Your task to perform on an android device: Go to location settings Image 0: 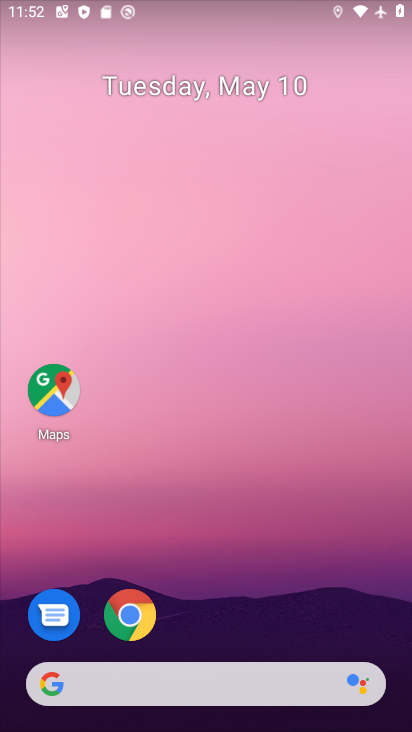
Step 0: drag from (246, 563) to (240, 11)
Your task to perform on an android device: Go to location settings Image 1: 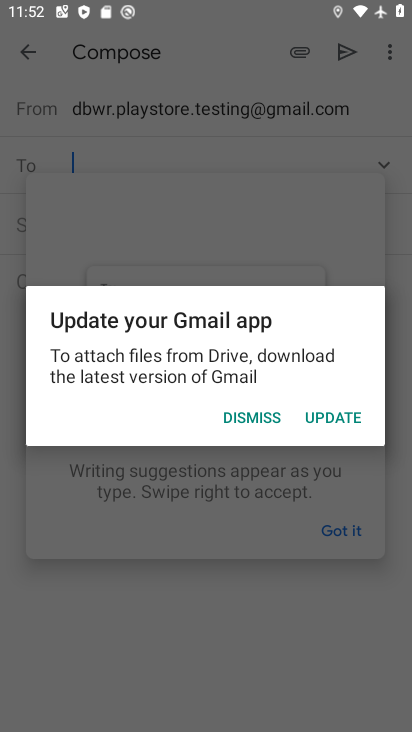
Step 1: press back button
Your task to perform on an android device: Go to location settings Image 2: 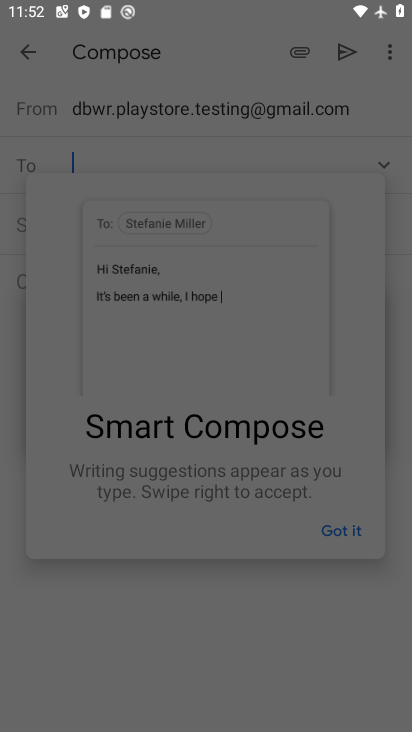
Step 2: press back button
Your task to perform on an android device: Go to location settings Image 3: 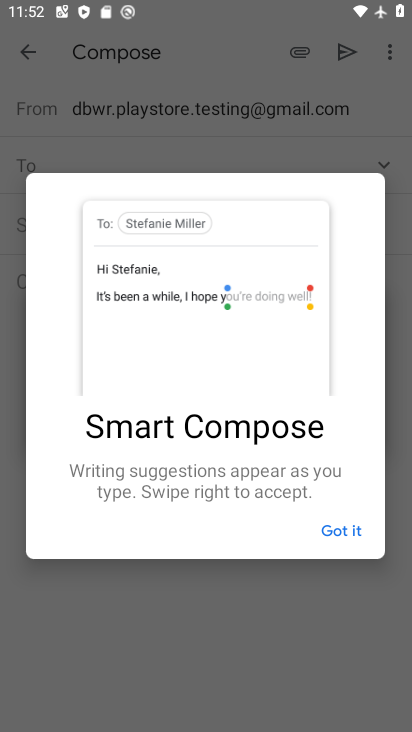
Step 3: press home button
Your task to perform on an android device: Go to location settings Image 4: 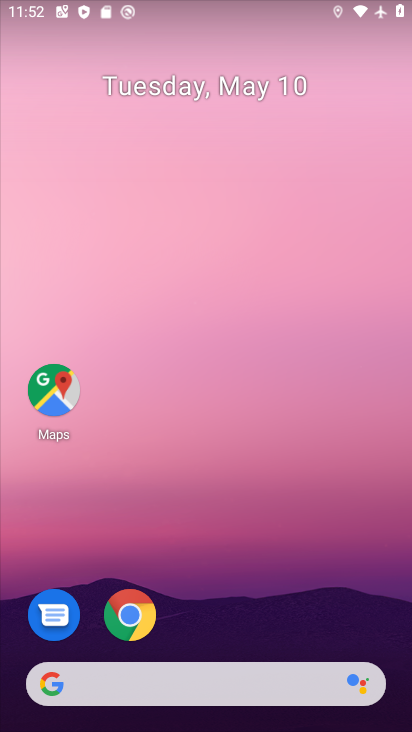
Step 4: drag from (255, 605) to (252, 80)
Your task to perform on an android device: Go to location settings Image 5: 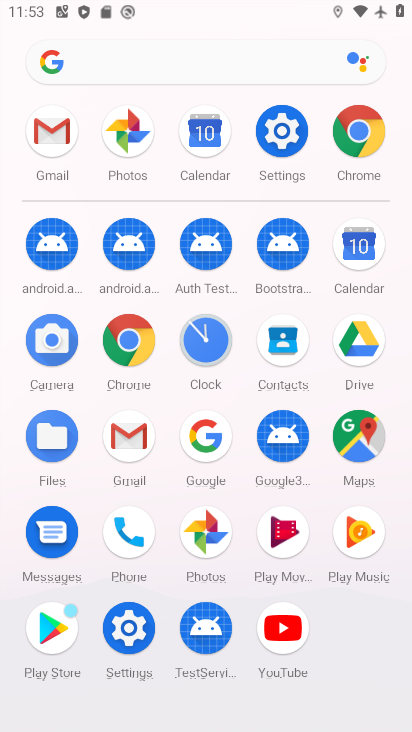
Step 5: click (126, 621)
Your task to perform on an android device: Go to location settings Image 6: 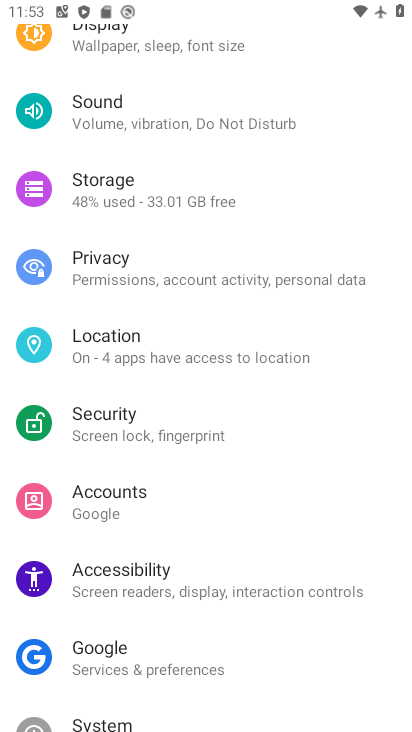
Step 6: drag from (160, 534) to (212, 201)
Your task to perform on an android device: Go to location settings Image 7: 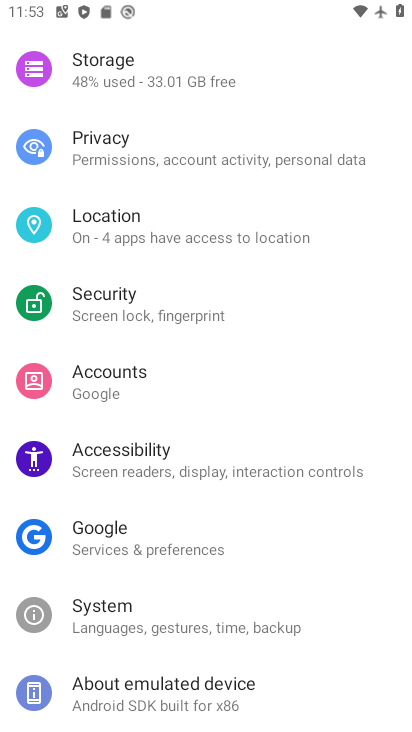
Step 7: drag from (193, 590) to (240, 186)
Your task to perform on an android device: Go to location settings Image 8: 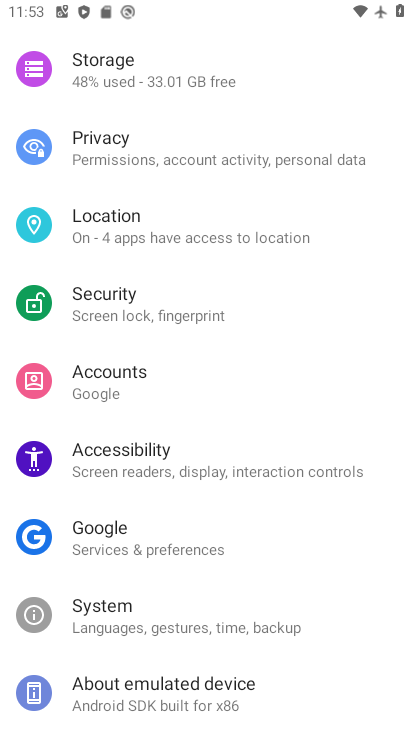
Step 8: drag from (223, 599) to (232, 175)
Your task to perform on an android device: Go to location settings Image 9: 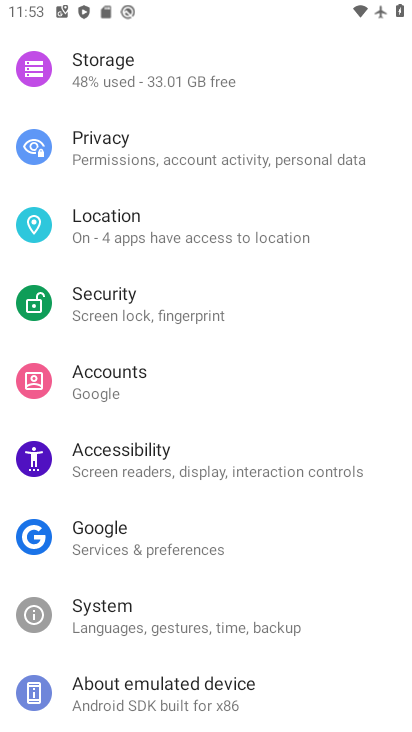
Step 9: click (176, 235)
Your task to perform on an android device: Go to location settings Image 10: 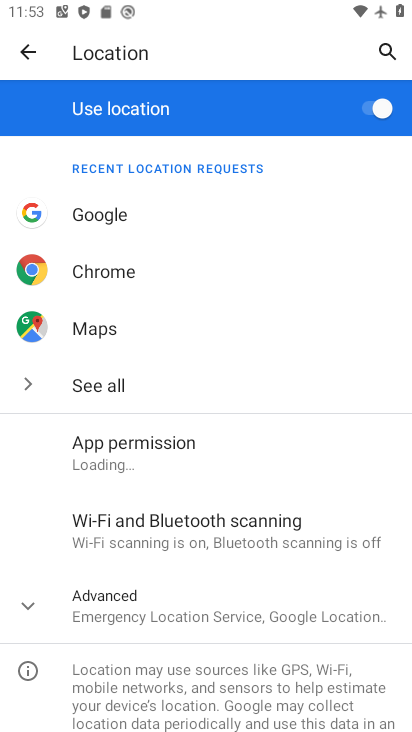
Step 10: drag from (192, 452) to (237, 129)
Your task to perform on an android device: Go to location settings Image 11: 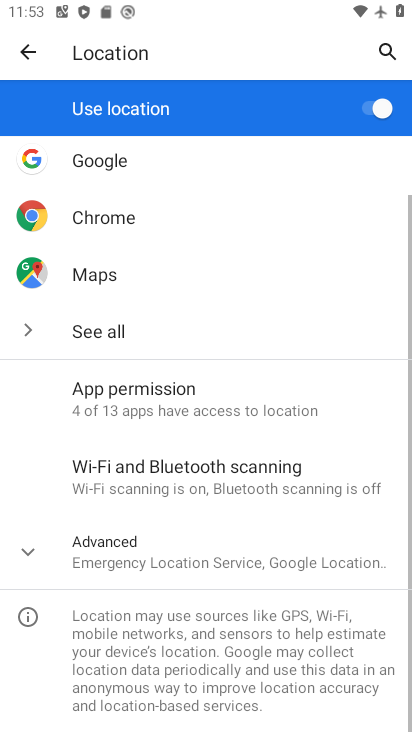
Step 11: click (27, 553)
Your task to perform on an android device: Go to location settings Image 12: 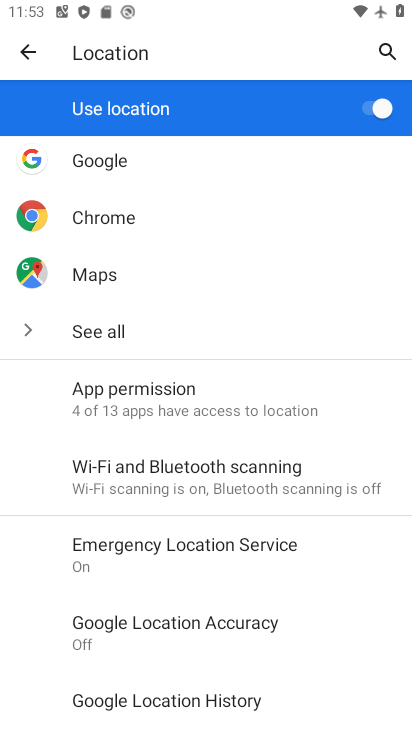
Step 12: task complete